Your task to perform on an android device: What's the weather going to be this weekend? Image 0: 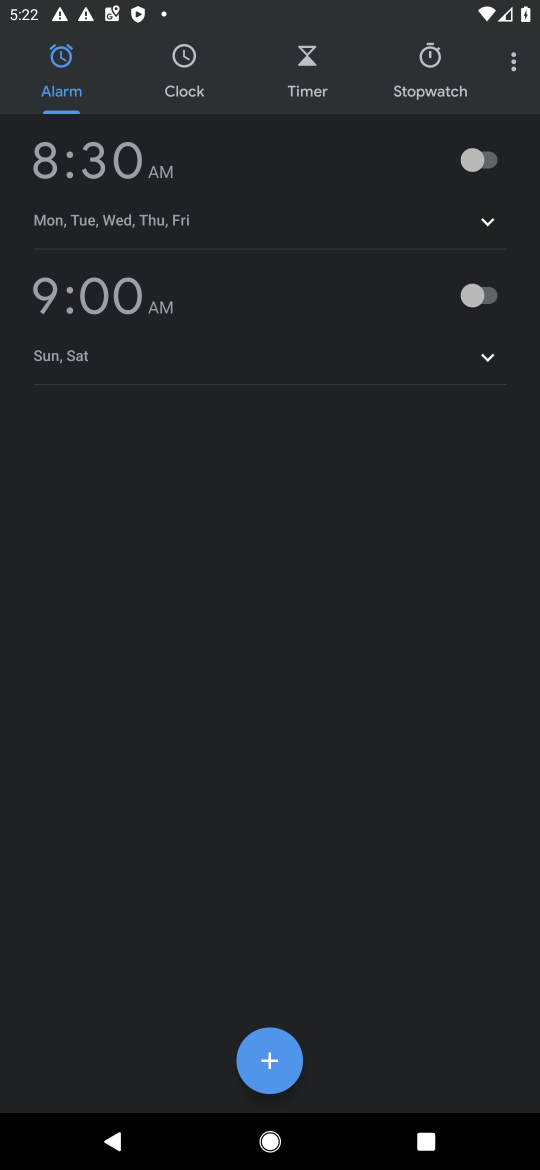
Step 0: press home button
Your task to perform on an android device: What's the weather going to be this weekend? Image 1: 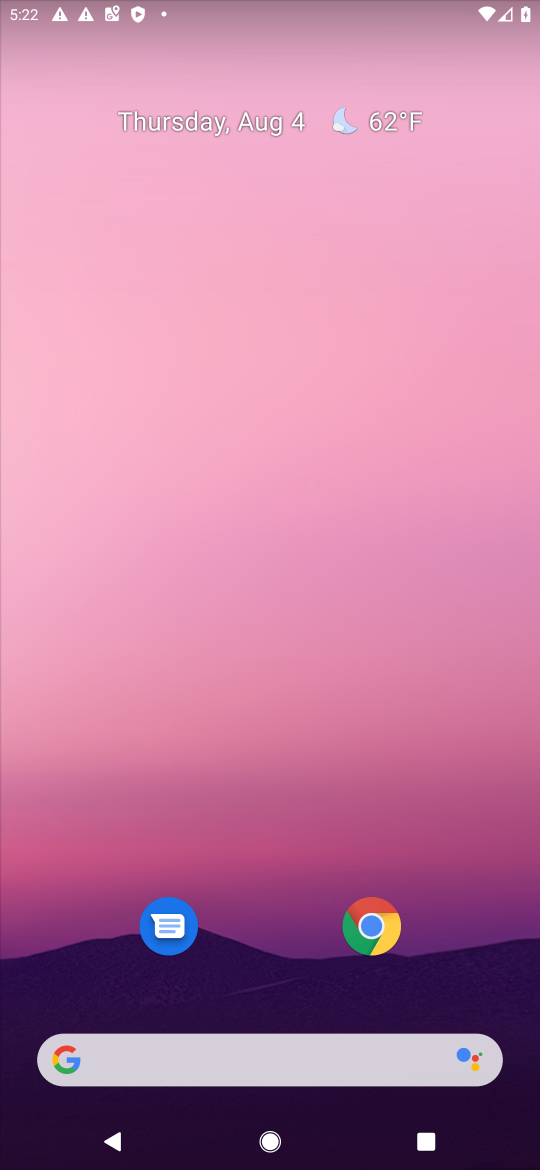
Step 1: click (74, 1063)
Your task to perform on an android device: What's the weather going to be this weekend? Image 2: 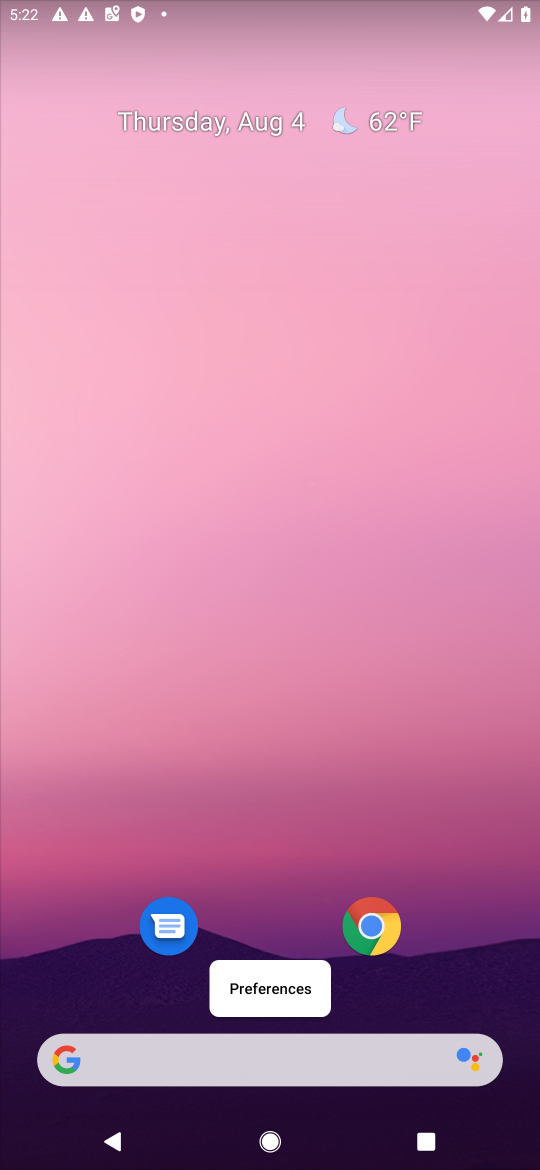
Step 2: click (70, 1062)
Your task to perform on an android device: What's the weather going to be this weekend? Image 3: 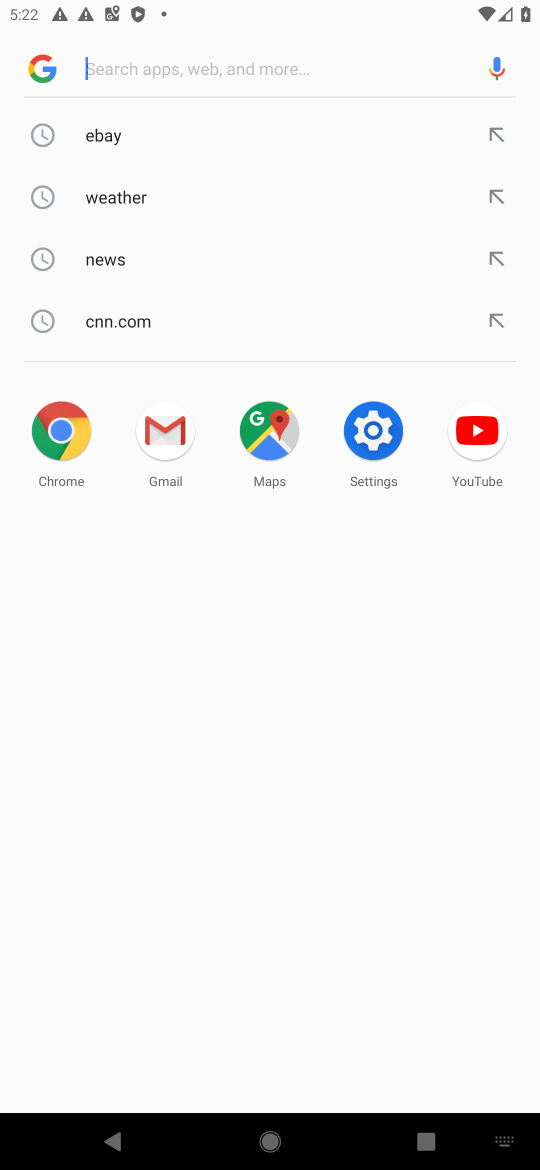
Step 3: type "weather going to be this weekend?"
Your task to perform on an android device: What's the weather going to be this weekend? Image 4: 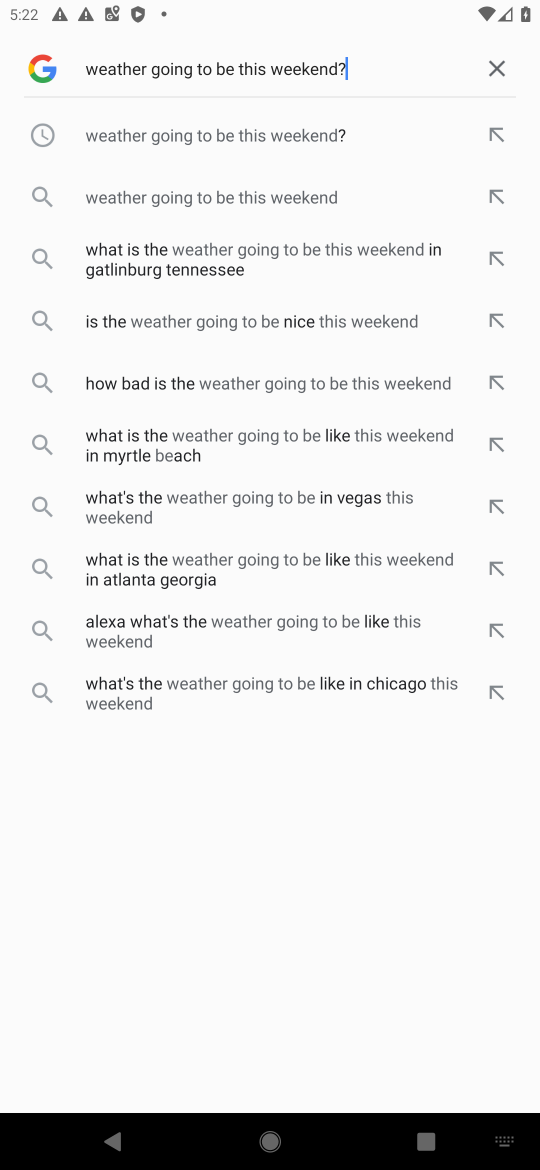
Step 4: press enter
Your task to perform on an android device: What's the weather going to be this weekend? Image 5: 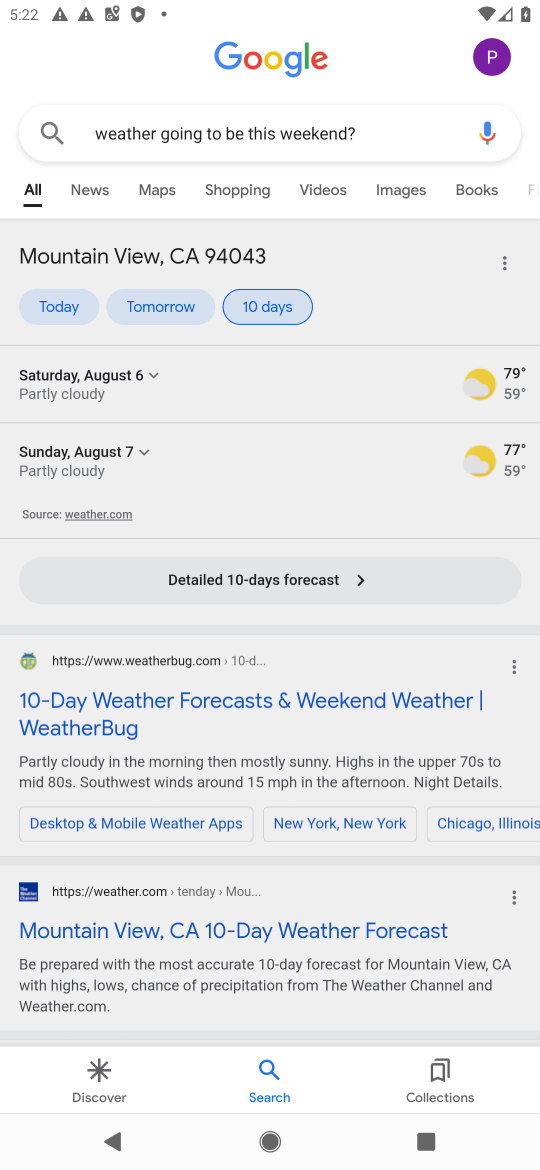
Step 5: task complete